Your task to perform on an android device: set default search engine in the chrome app Image 0: 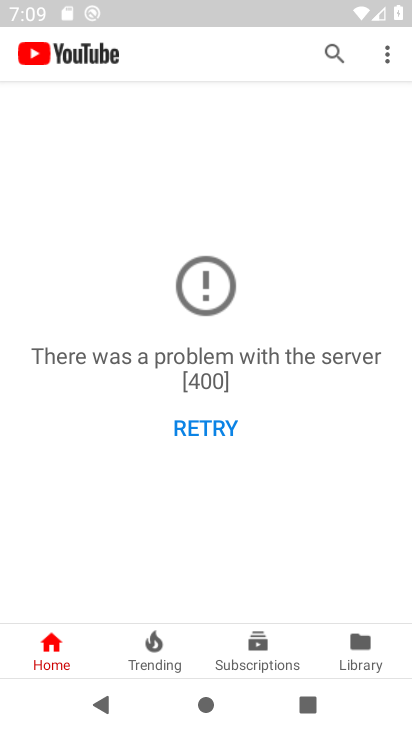
Step 0: press home button
Your task to perform on an android device: set default search engine in the chrome app Image 1: 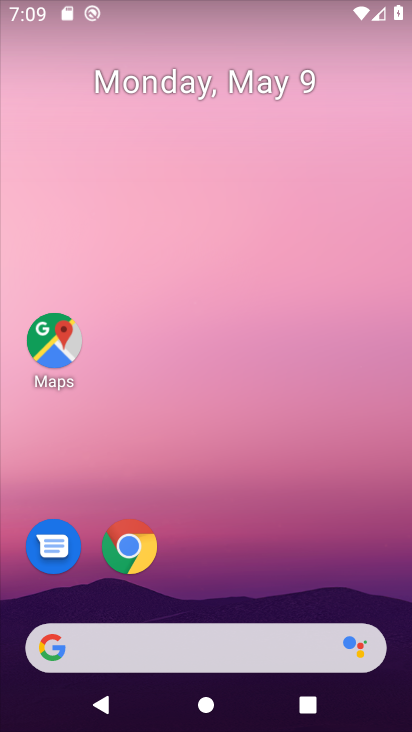
Step 1: click (154, 556)
Your task to perform on an android device: set default search engine in the chrome app Image 2: 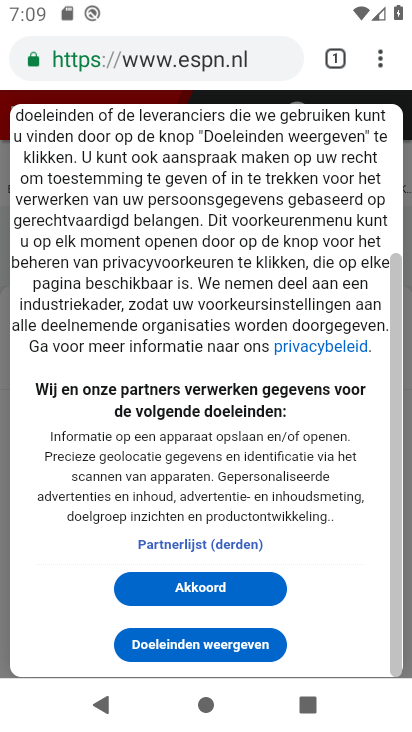
Step 2: drag from (382, 65) to (179, 578)
Your task to perform on an android device: set default search engine in the chrome app Image 3: 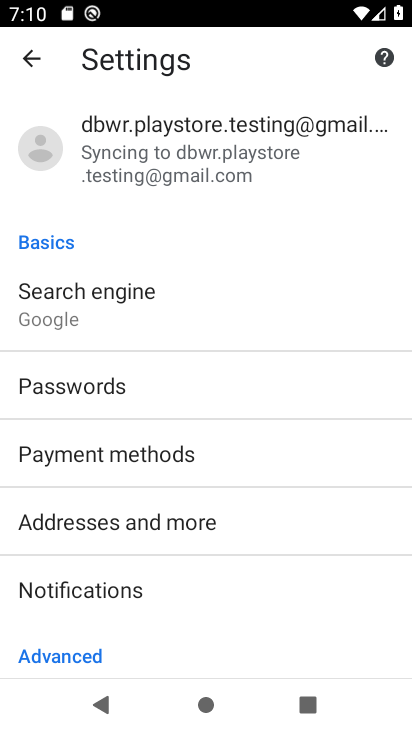
Step 3: click (138, 311)
Your task to perform on an android device: set default search engine in the chrome app Image 4: 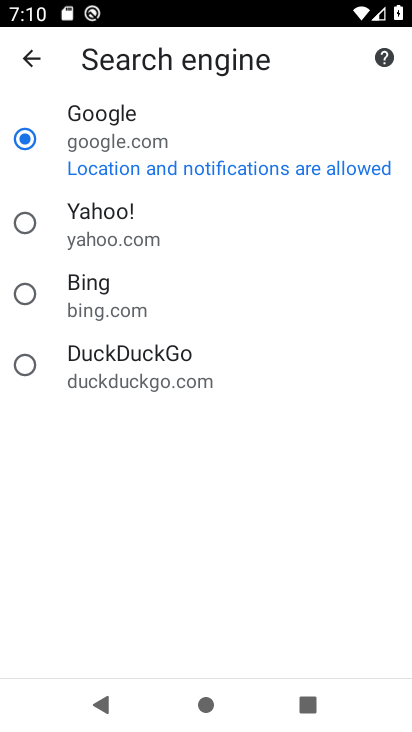
Step 4: click (147, 236)
Your task to perform on an android device: set default search engine in the chrome app Image 5: 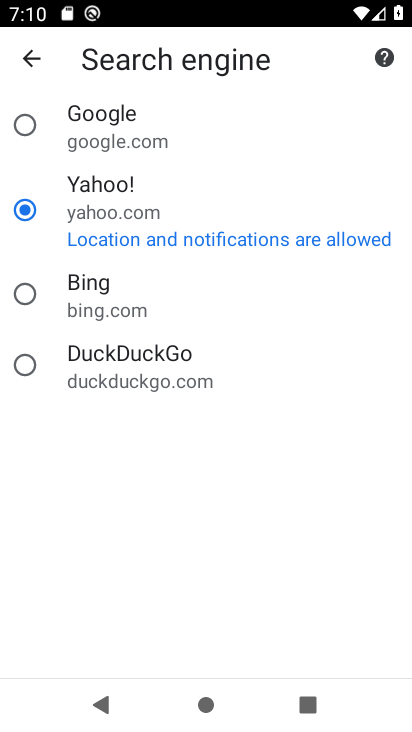
Step 5: click (256, 302)
Your task to perform on an android device: set default search engine in the chrome app Image 6: 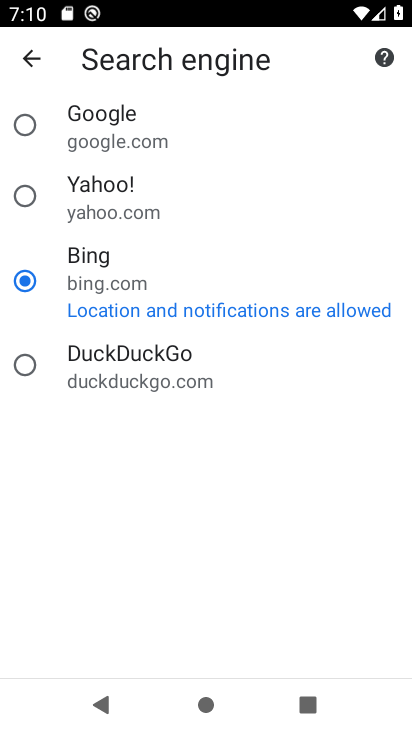
Step 6: task complete